Your task to perform on an android device: Search for sushi restaurants on Maps Image 0: 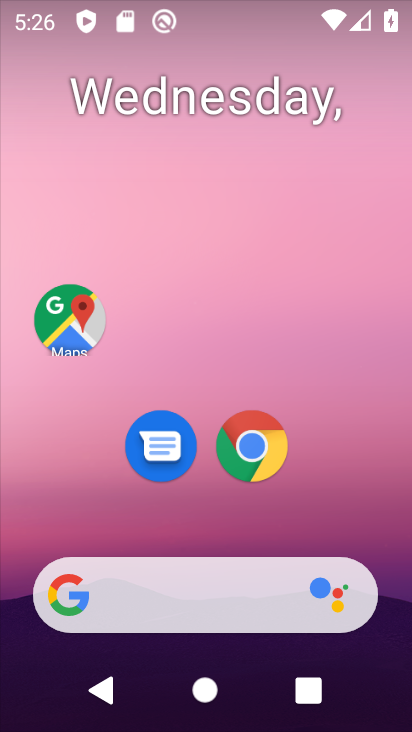
Step 0: drag from (334, 507) to (244, 29)
Your task to perform on an android device: Search for sushi restaurants on Maps Image 1: 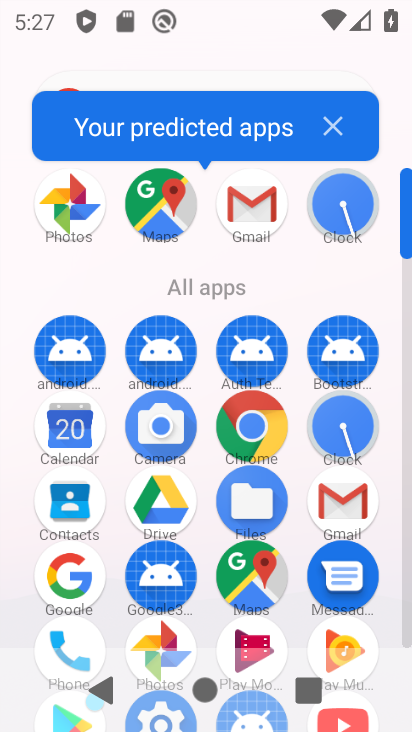
Step 1: drag from (11, 582) to (6, 281)
Your task to perform on an android device: Search for sushi restaurants on Maps Image 2: 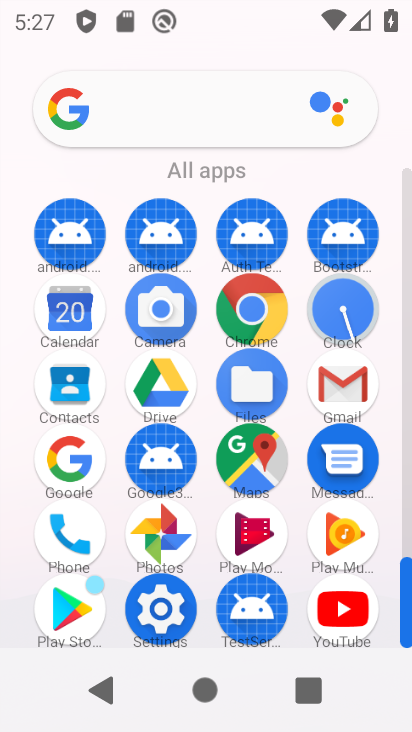
Step 2: click (253, 457)
Your task to perform on an android device: Search for sushi restaurants on Maps Image 3: 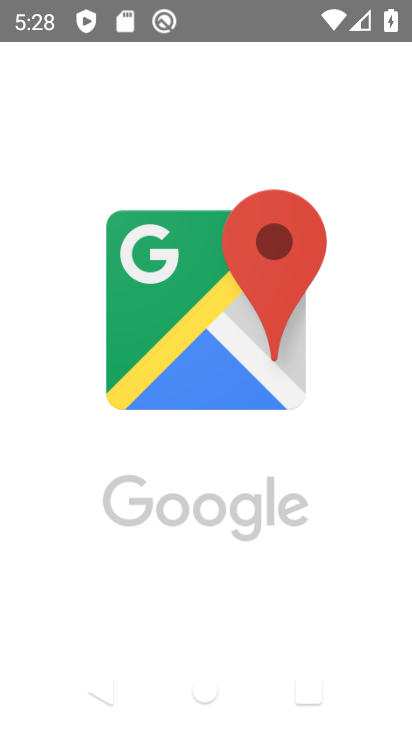
Step 3: task complete